Your task to perform on an android device: move an email to a new category in the gmail app Image 0: 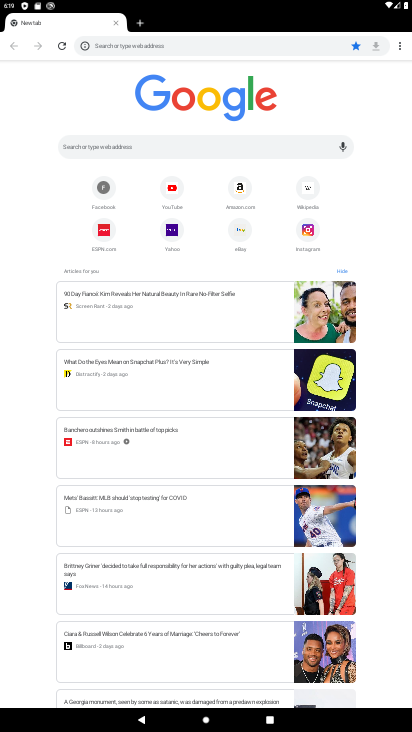
Step 0: press home button
Your task to perform on an android device: move an email to a new category in the gmail app Image 1: 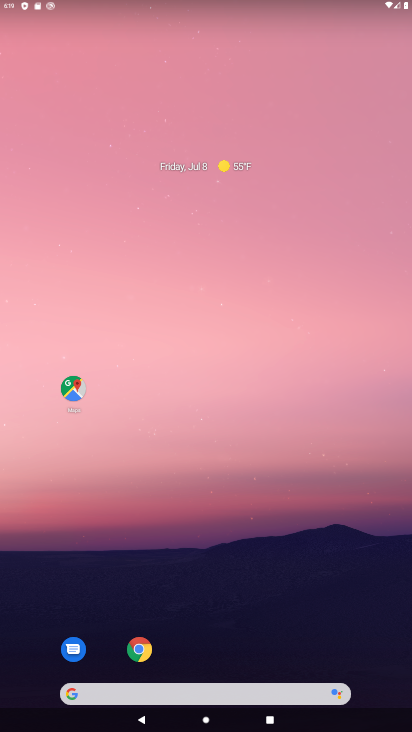
Step 1: drag from (286, 691) to (240, 83)
Your task to perform on an android device: move an email to a new category in the gmail app Image 2: 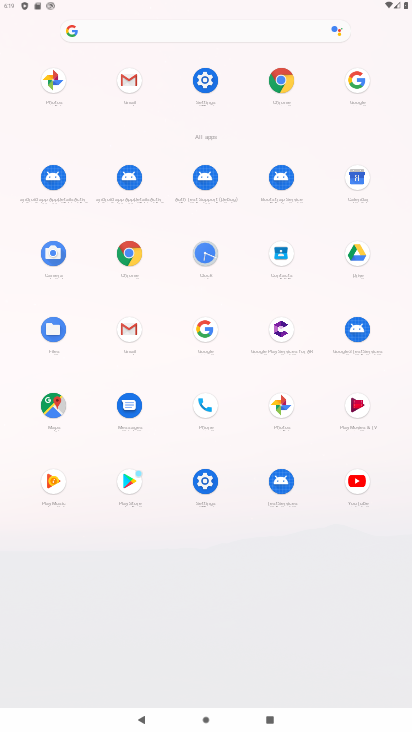
Step 2: click (134, 326)
Your task to perform on an android device: move an email to a new category in the gmail app Image 3: 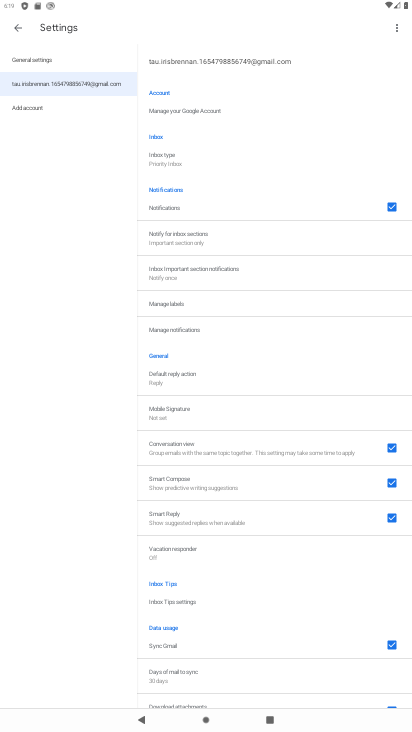
Step 3: press back button
Your task to perform on an android device: move an email to a new category in the gmail app Image 4: 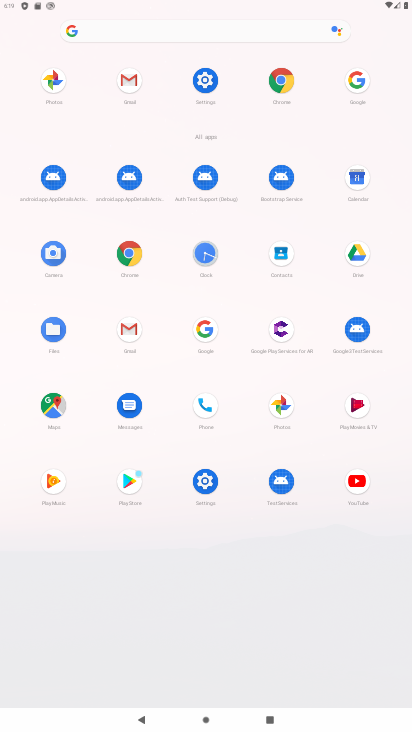
Step 4: click (126, 336)
Your task to perform on an android device: move an email to a new category in the gmail app Image 5: 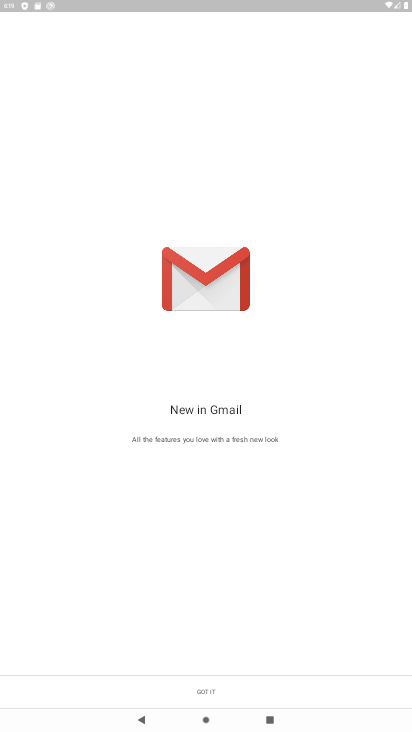
Step 5: click (192, 685)
Your task to perform on an android device: move an email to a new category in the gmail app Image 6: 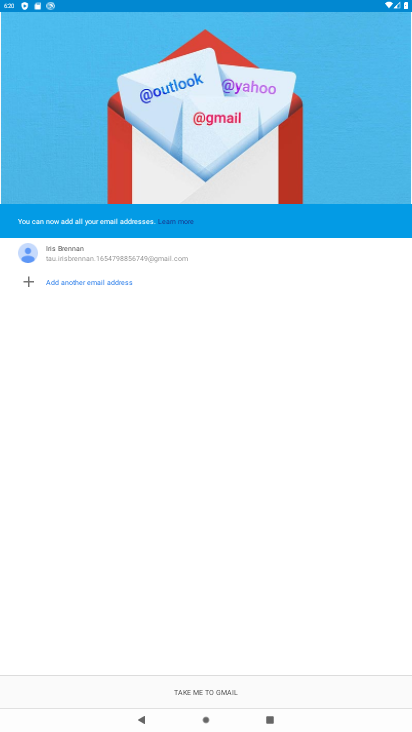
Step 6: click (192, 685)
Your task to perform on an android device: move an email to a new category in the gmail app Image 7: 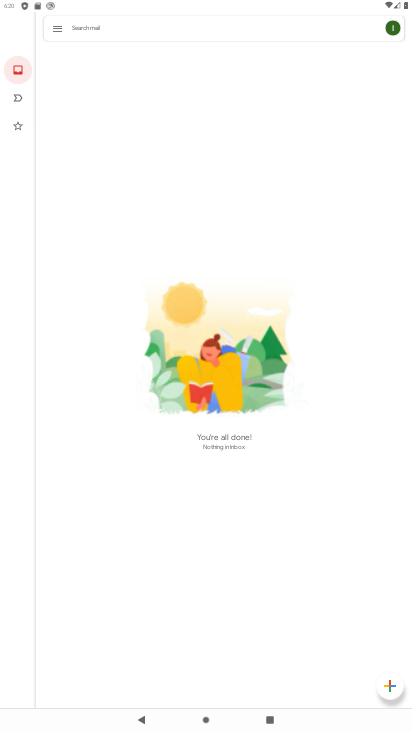
Step 7: task complete